Your task to perform on an android device: choose inbox layout in the gmail app Image 0: 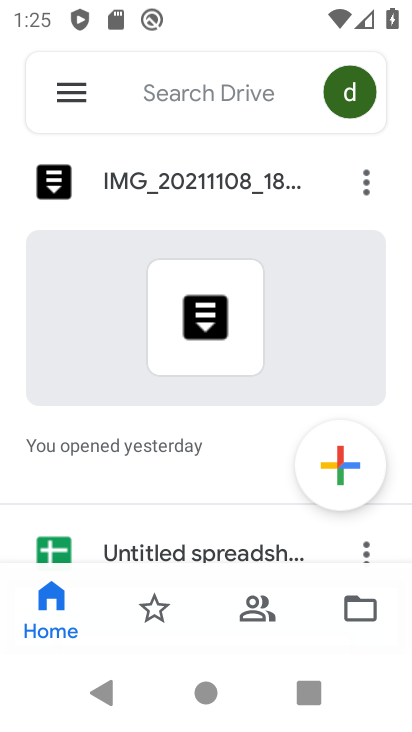
Step 0: press home button
Your task to perform on an android device: choose inbox layout in the gmail app Image 1: 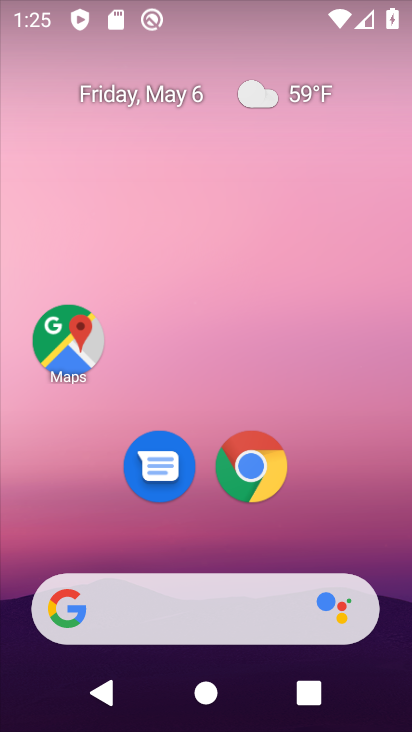
Step 1: drag from (211, 549) to (205, 103)
Your task to perform on an android device: choose inbox layout in the gmail app Image 2: 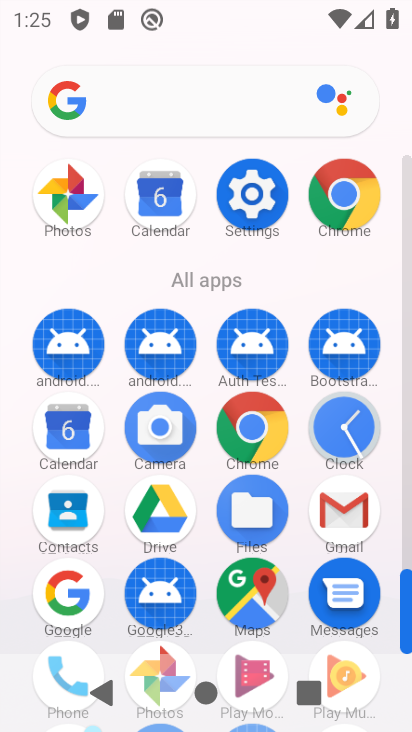
Step 2: click (338, 499)
Your task to perform on an android device: choose inbox layout in the gmail app Image 3: 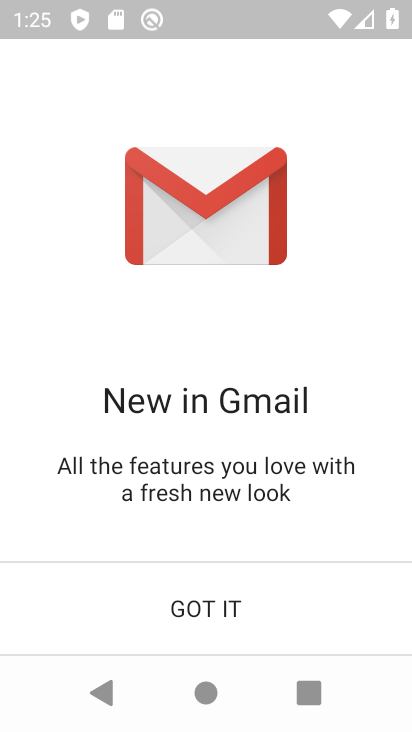
Step 3: click (211, 625)
Your task to perform on an android device: choose inbox layout in the gmail app Image 4: 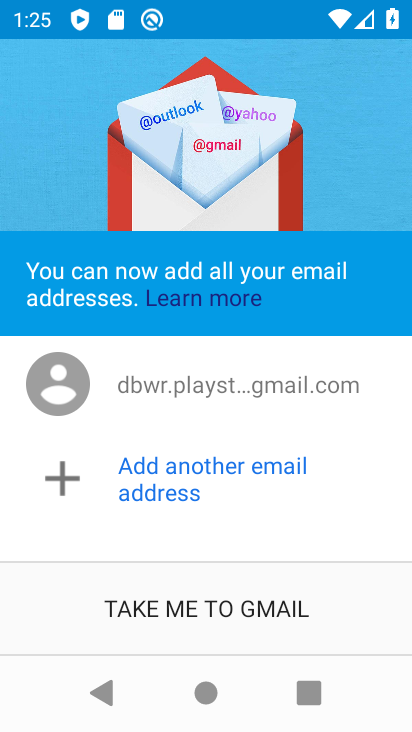
Step 4: click (211, 625)
Your task to perform on an android device: choose inbox layout in the gmail app Image 5: 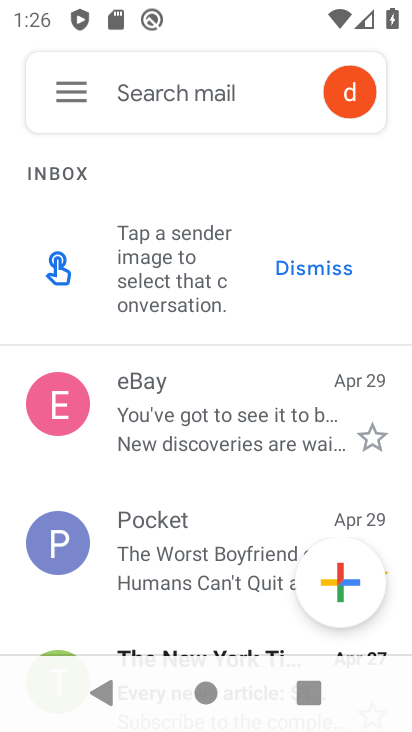
Step 5: click (67, 91)
Your task to perform on an android device: choose inbox layout in the gmail app Image 6: 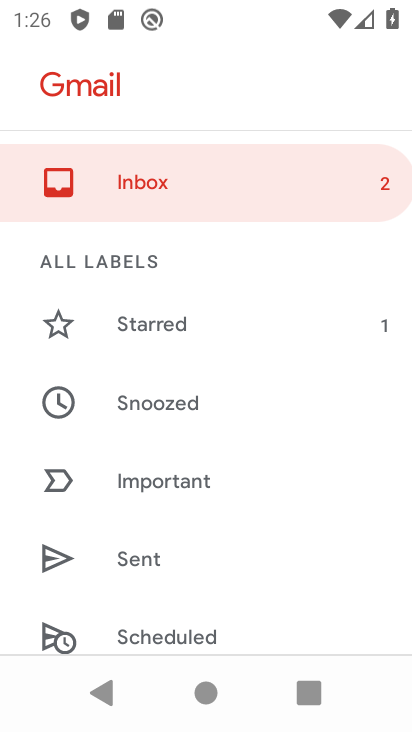
Step 6: drag from (226, 595) to (225, 125)
Your task to perform on an android device: choose inbox layout in the gmail app Image 7: 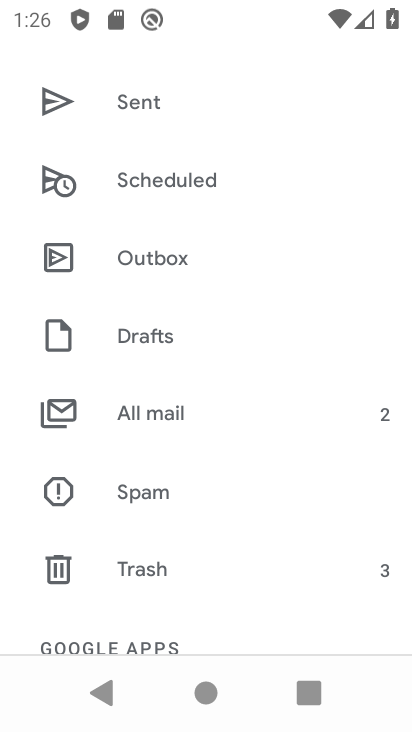
Step 7: drag from (197, 616) to (227, 95)
Your task to perform on an android device: choose inbox layout in the gmail app Image 8: 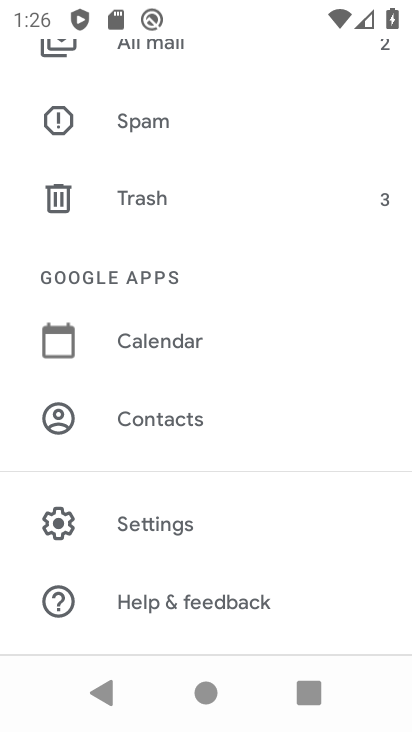
Step 8: click (196, 518)
Your task to perform on an android device: choose inbox layout in the gmail app Image 9: 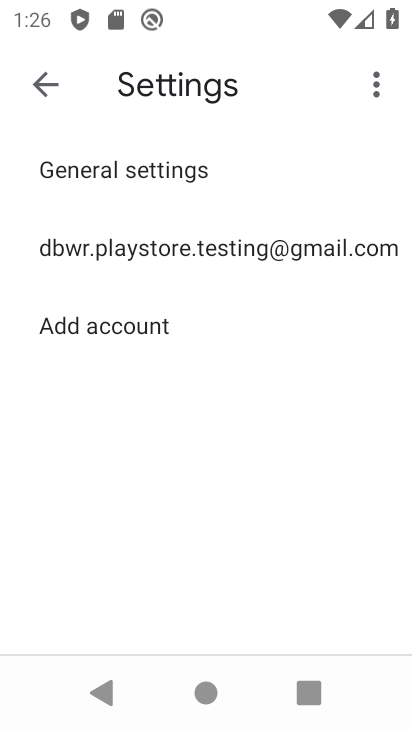
Step 9: click (214, 251)
Your task to perform on an android device: choose inbox layout in the gmail app Image 10: 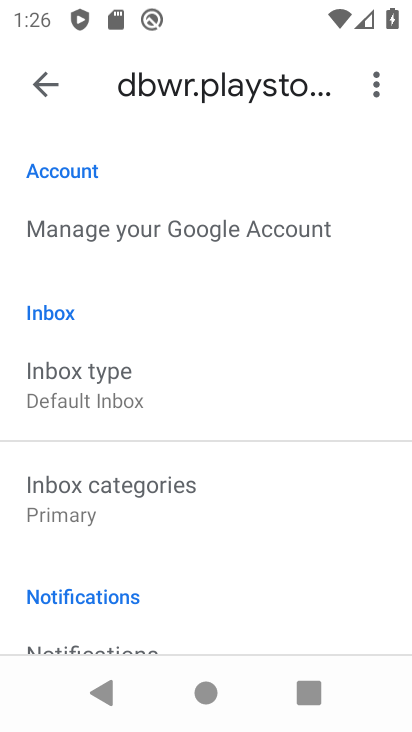
Step 10: click (150, 380)
Your task to perform on an android device: choose inbox layout in the gmail app Image 11: 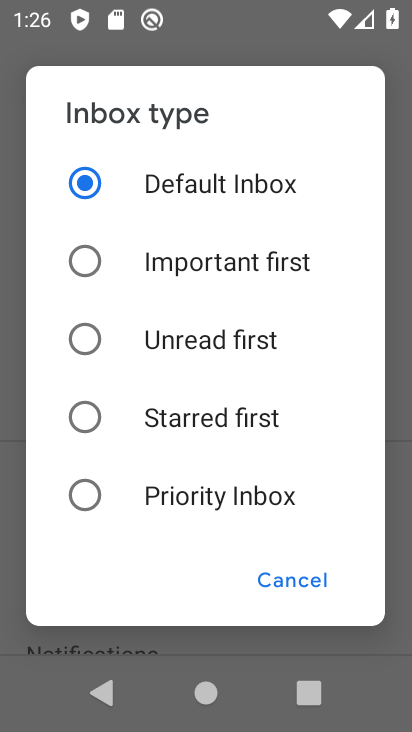
Step 11: click (96, 495)
Your task to perform on an android device: choose inbox layout in the gmail app Image 12: 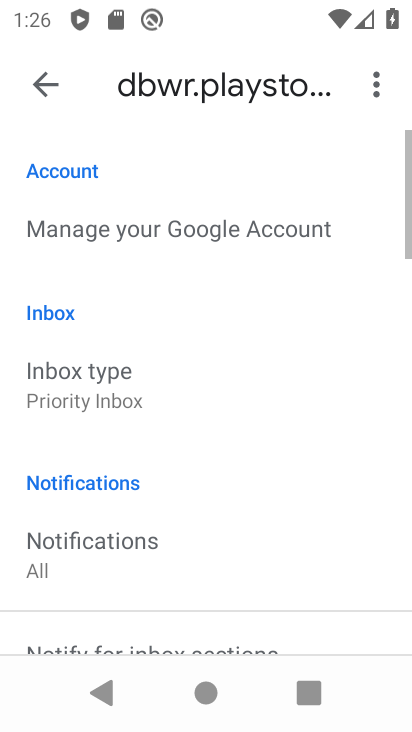
Step 12: task complete